Your task to perform on an android device: turn off location history Image 0: 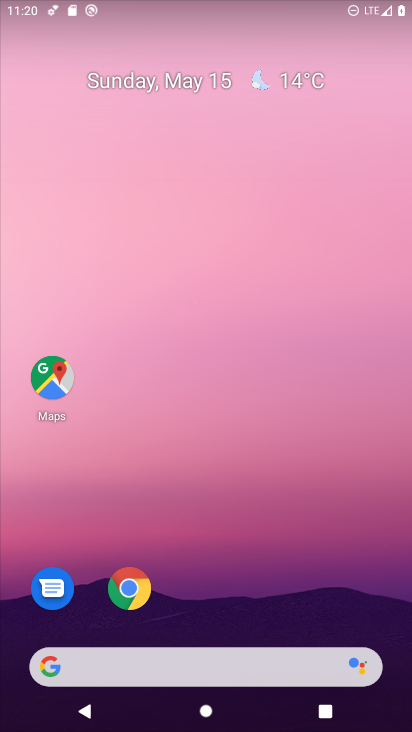
Step 0: drag from (230, 596) to (344, 23)
Your task to perform on an android device: turn off location history Image 1: 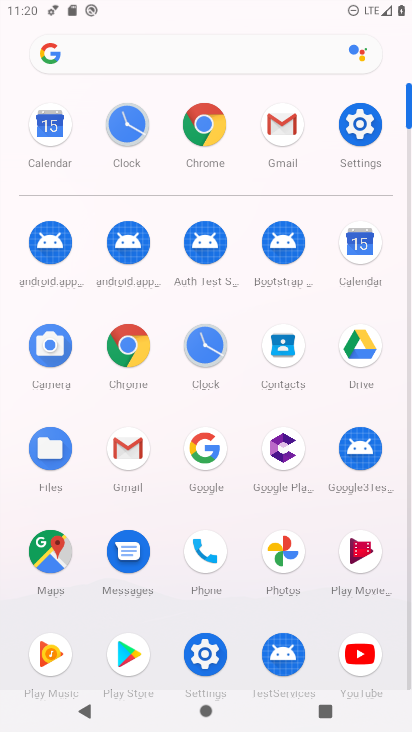
Step 1: drag from (237, 617) to (308, 41)
Your task to perform on an android device: turn off location history Image 2: 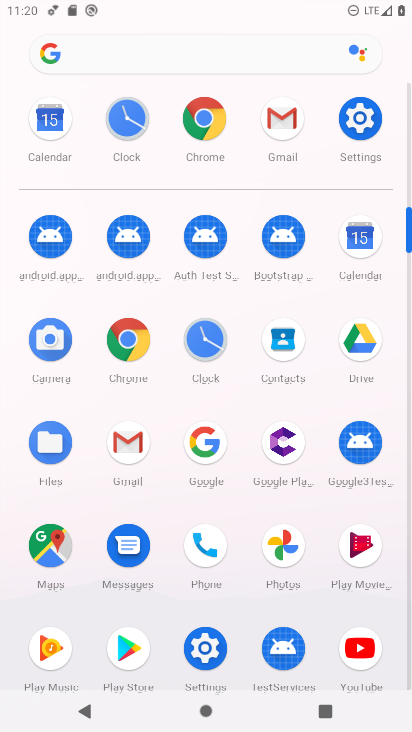
Step 2: click (206, 641)
Your task to perform on an android device: turn off location history Image 3: 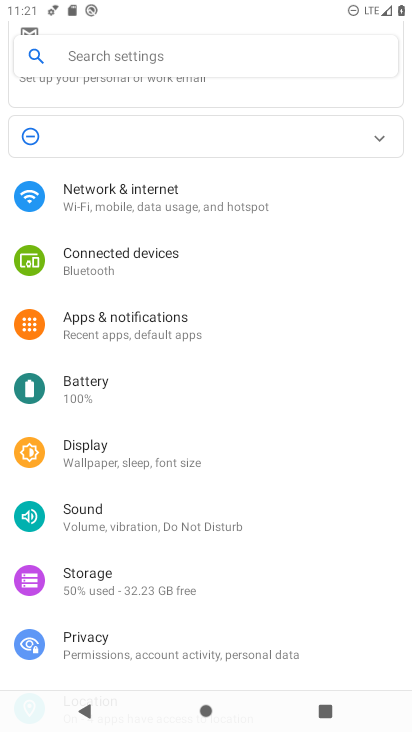
Step 3: drag from (148, 528) to (203, 212)
Your task to perform on an android device: turn off location history Image 4: 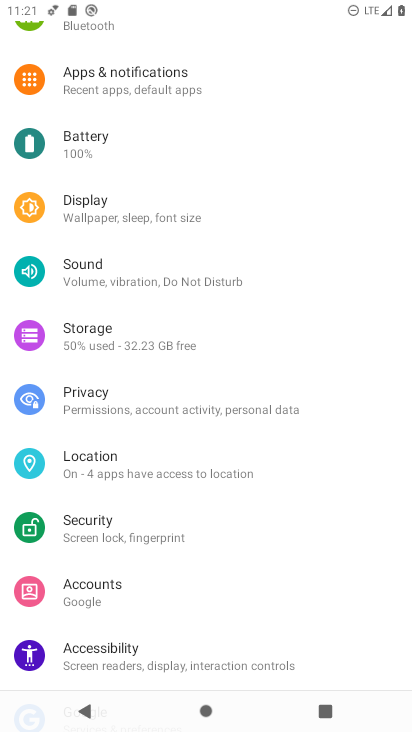
Step 4: click (128, 471)
Your task to perform on an android device: turn off location history Image 5: 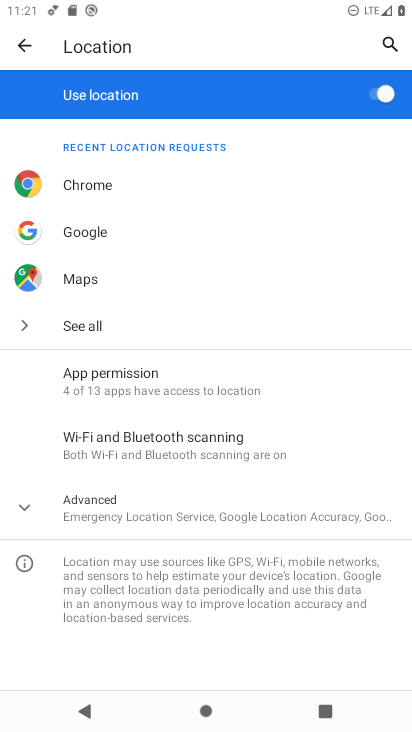
Step 5: click (151, 517)
Your task to perform on an android device: turn off location history Image 6: 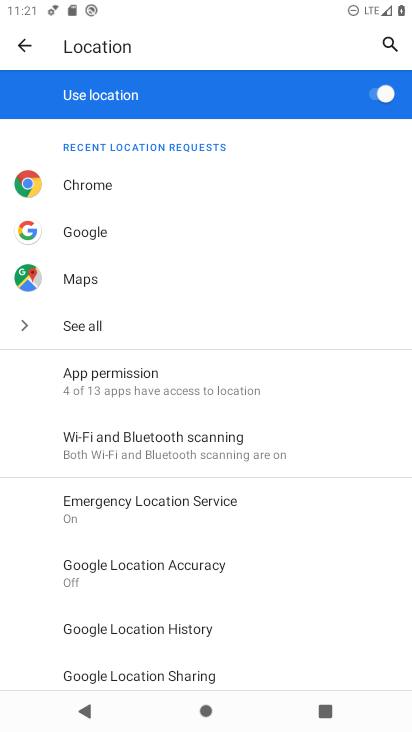
Step 6: click (176, 622)
Your task to perform on an android device: turn off location history Image 7: 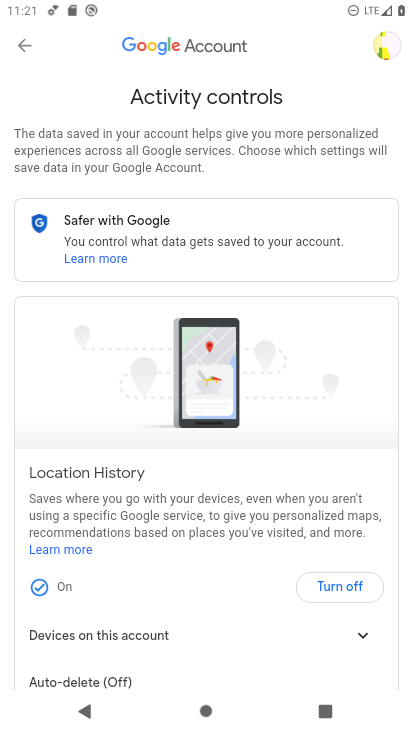
Step 7: click (337, 585)
Your task to perform on an android device: turn off location history Image 8: 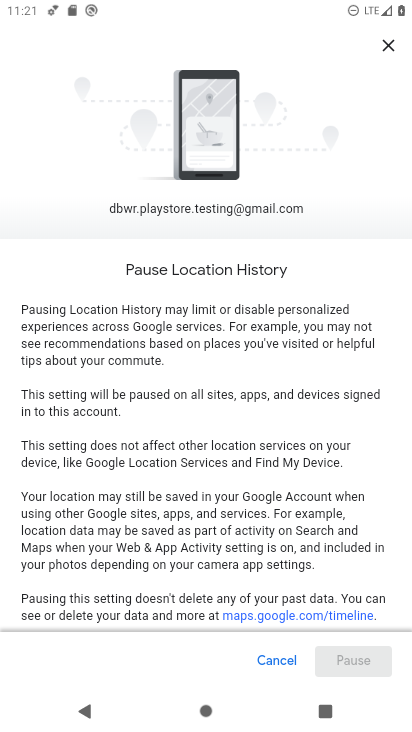
Step 8: drag from (241, 548) to (355, 0)
Your task to perform on an android device: turn off location history Image 9: 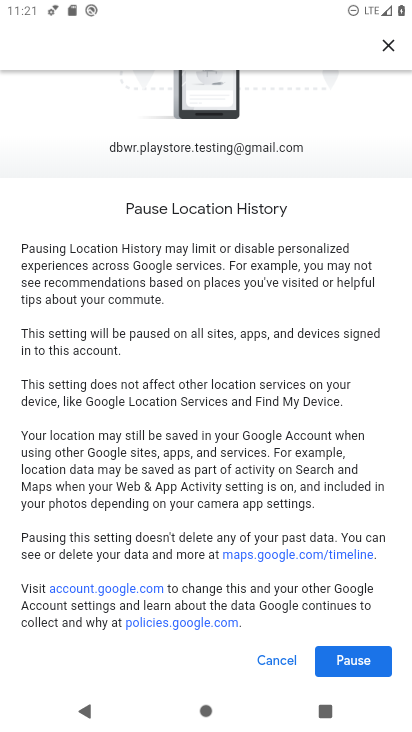
Step 9: click (372, 666)
Your task to perform on an android device: turn off location history Image 10: 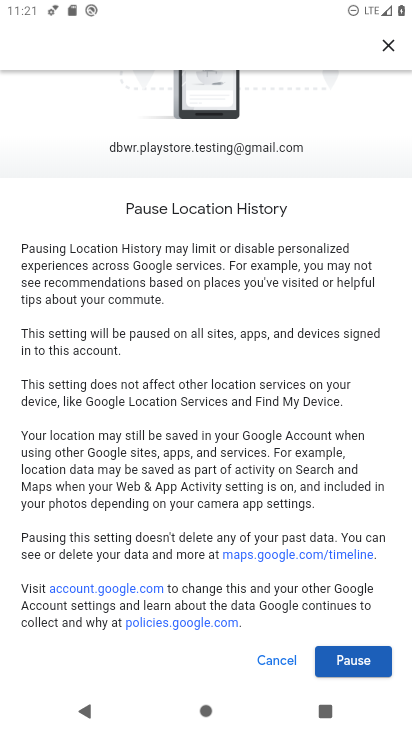
Step 10: click (346, 668)
Your task to perform on an android device: turn off location history Image 11: 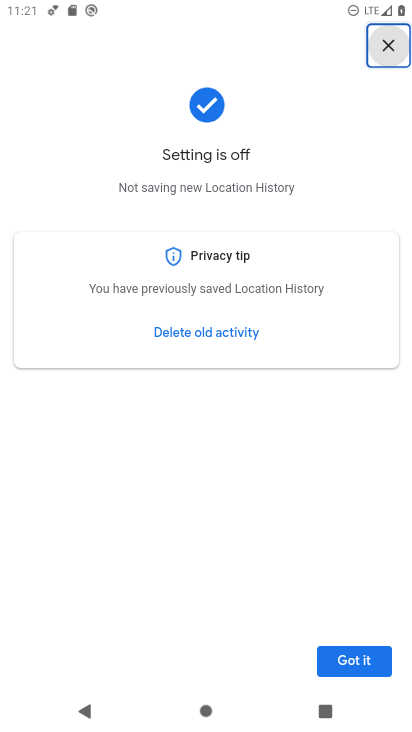
Step 11: click (359, 663)
Your task to perform on an android device: turn off location history Image 12: 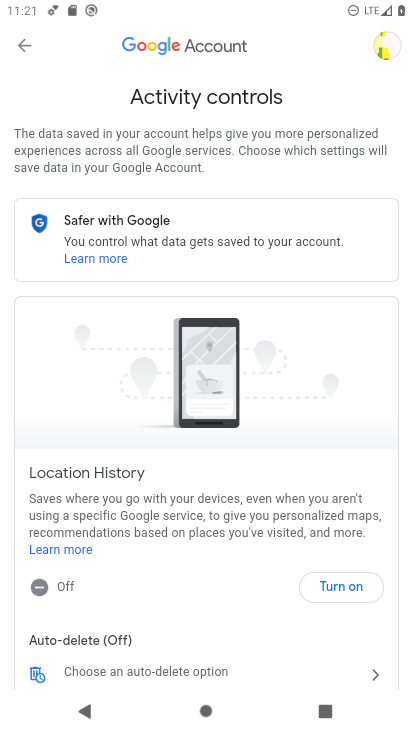
Step 12: task complete